Your task to perform on an android device: Go to Wikipedia Image 0: 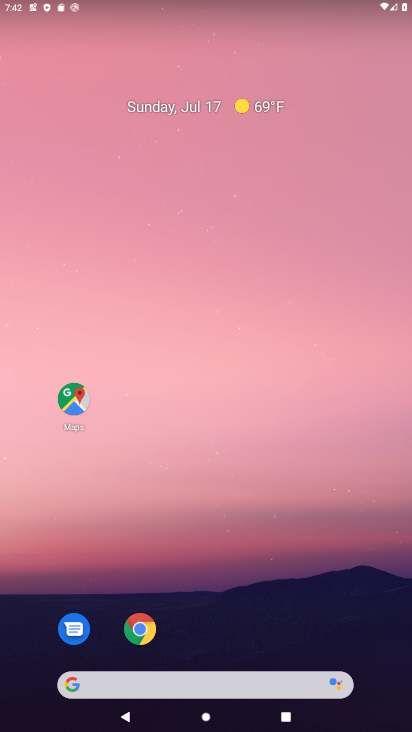
Step 0: drag from (282, 638) to (269, 154)
Your task to perform on an android device: Go to Wikipedia Image 1: 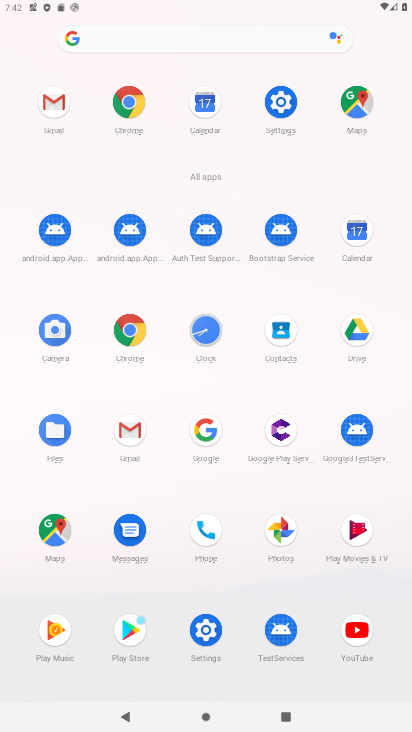
Step 1: click (128, 329)
Your task to perform on an android device: Go to Wikipedia Image 2: 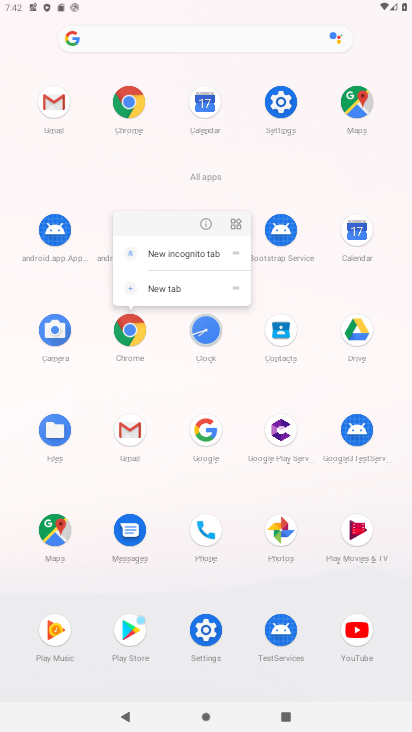
Step 2: click (136, 330)
Your task to perform on an android device: Go to Wikipedia Image 3: 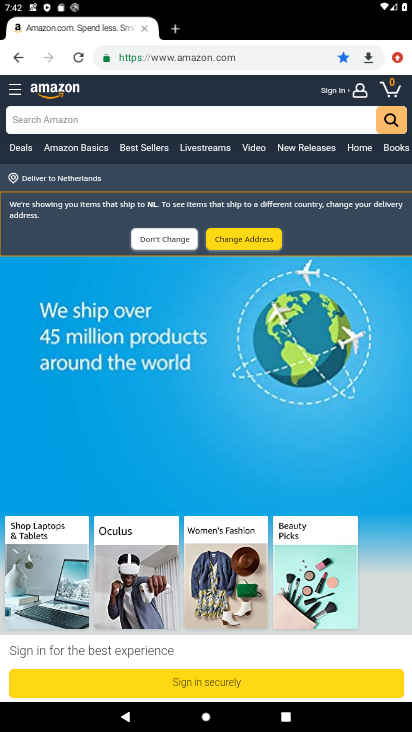
Step 3: press back button
Your task to perform on an android device: Go to Wikipedia Image 4: 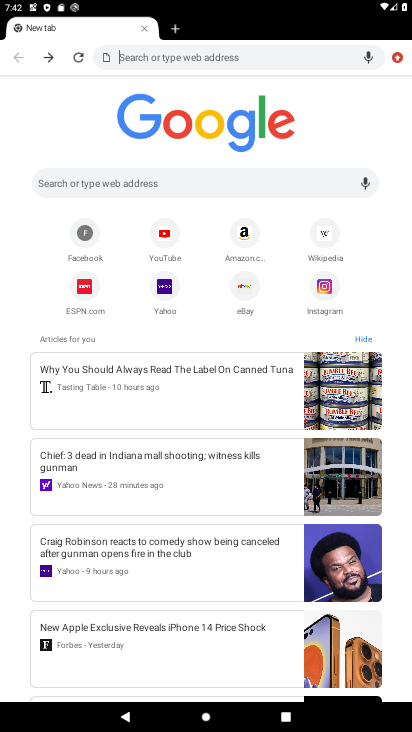
Step 4: click (320, 239)
Your task to perform on an android device: Go to Wikipedia Image 5: 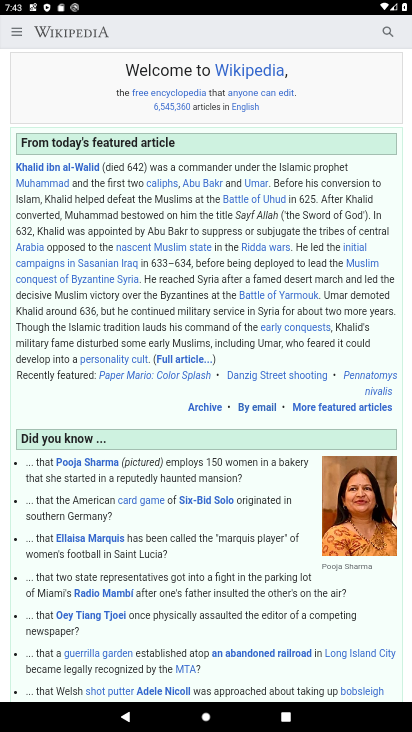
Step 5: task complete